Your task to perform on an android device: Clear the cart on ebay. Add "jbl flip 4" to the cart on ebay Image 0: 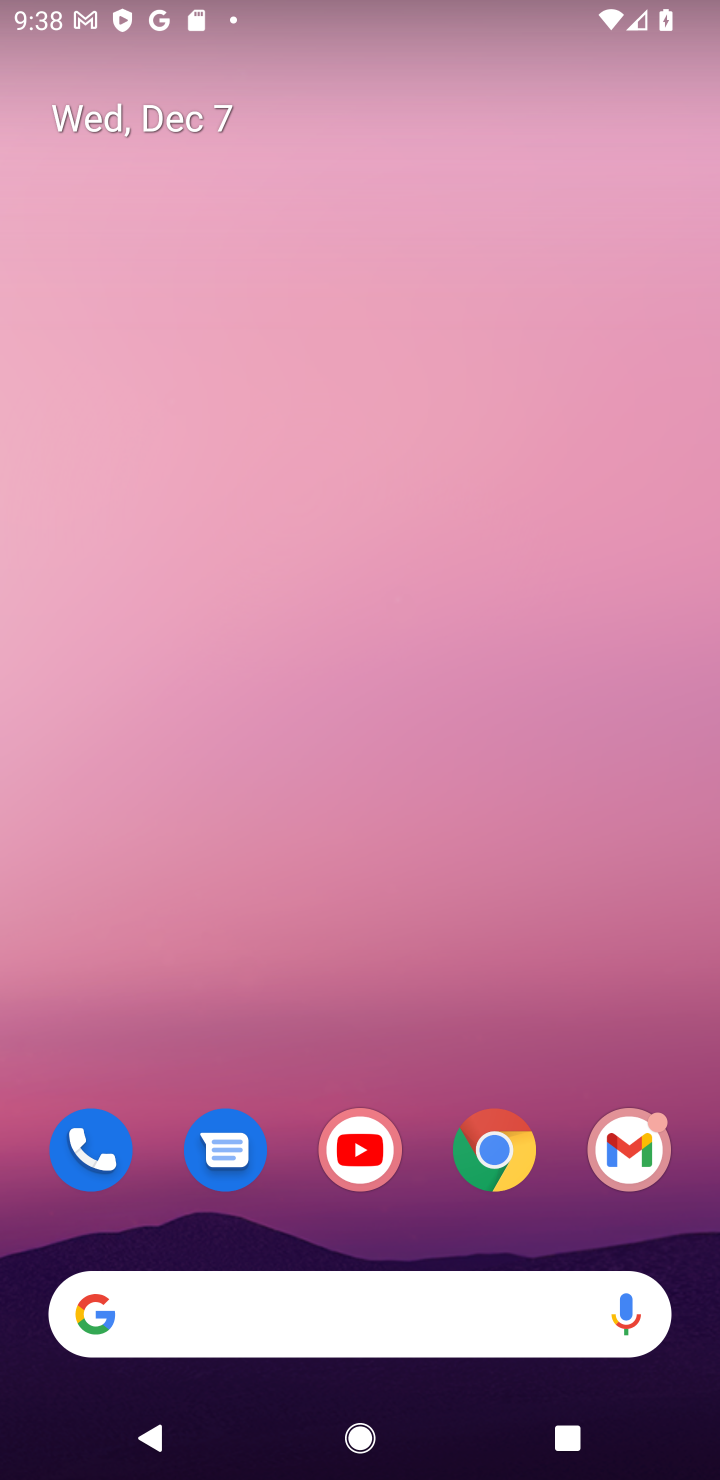
Step 0: click (490, 1156)
Your task to perform on an android device: Clear the cart on ebay. Add "jbl flip 4" to the cart on ebay Image 1: 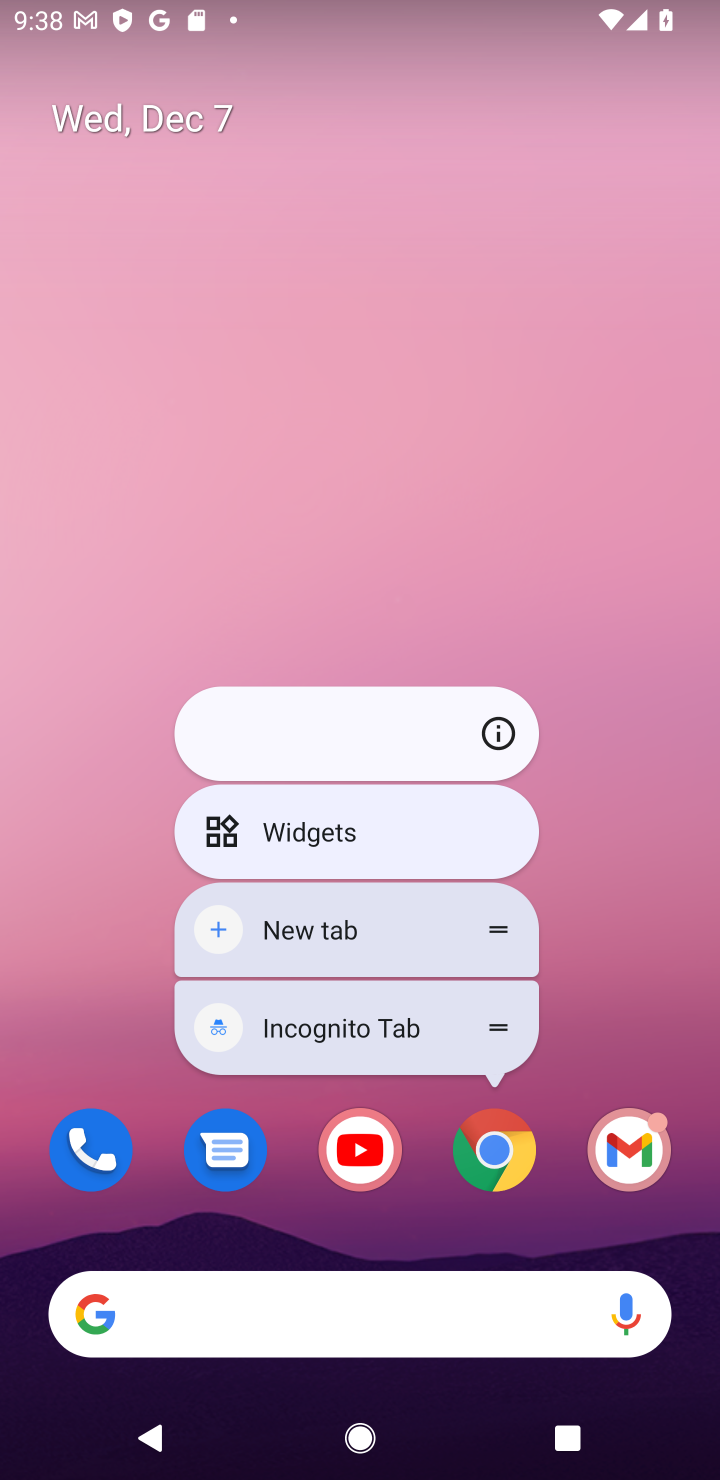
Step 1: click (510, 1138)
Your task to perform on an android device: Clear the cart on ebay. Add "jbl flip 4" to the cart on ebay Image 2: 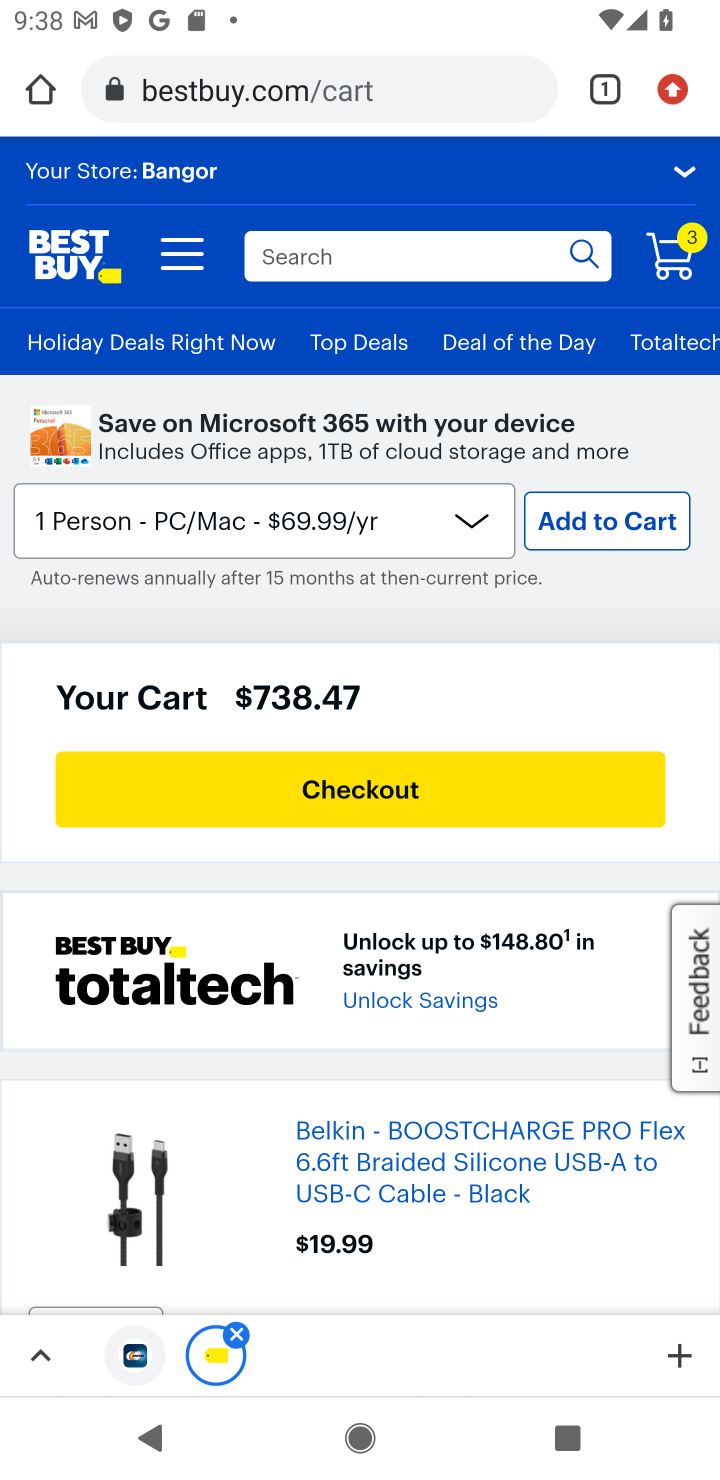
Step 2: click (350, 70)
Your task to perform on an android device: Clear the cart on ebay. Add "jbl flip 4" to the cart on ebay Image 3: 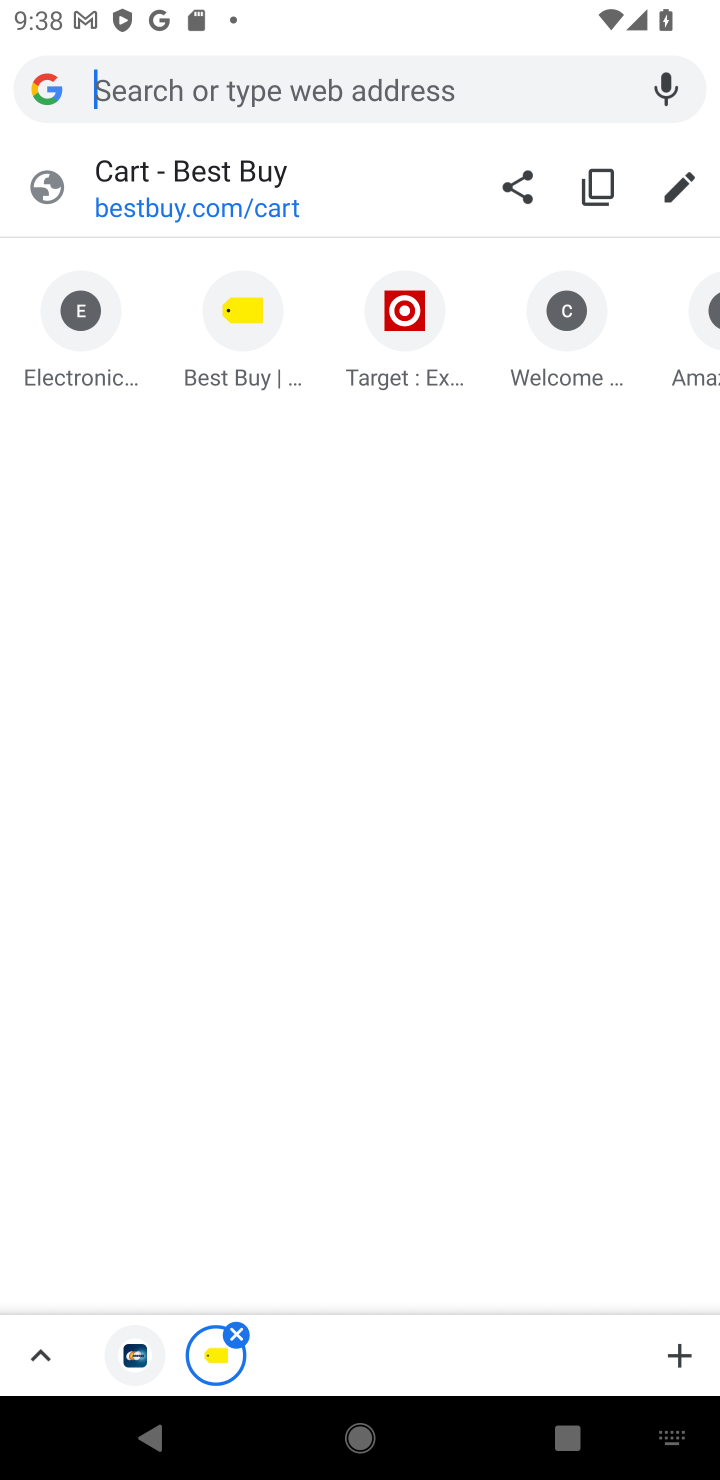
Step 3: type "ebay"
Your task to perform on an android device: Clear the cart on ebay. Add "jbl flip 4" to the cart on ebay Image 4: 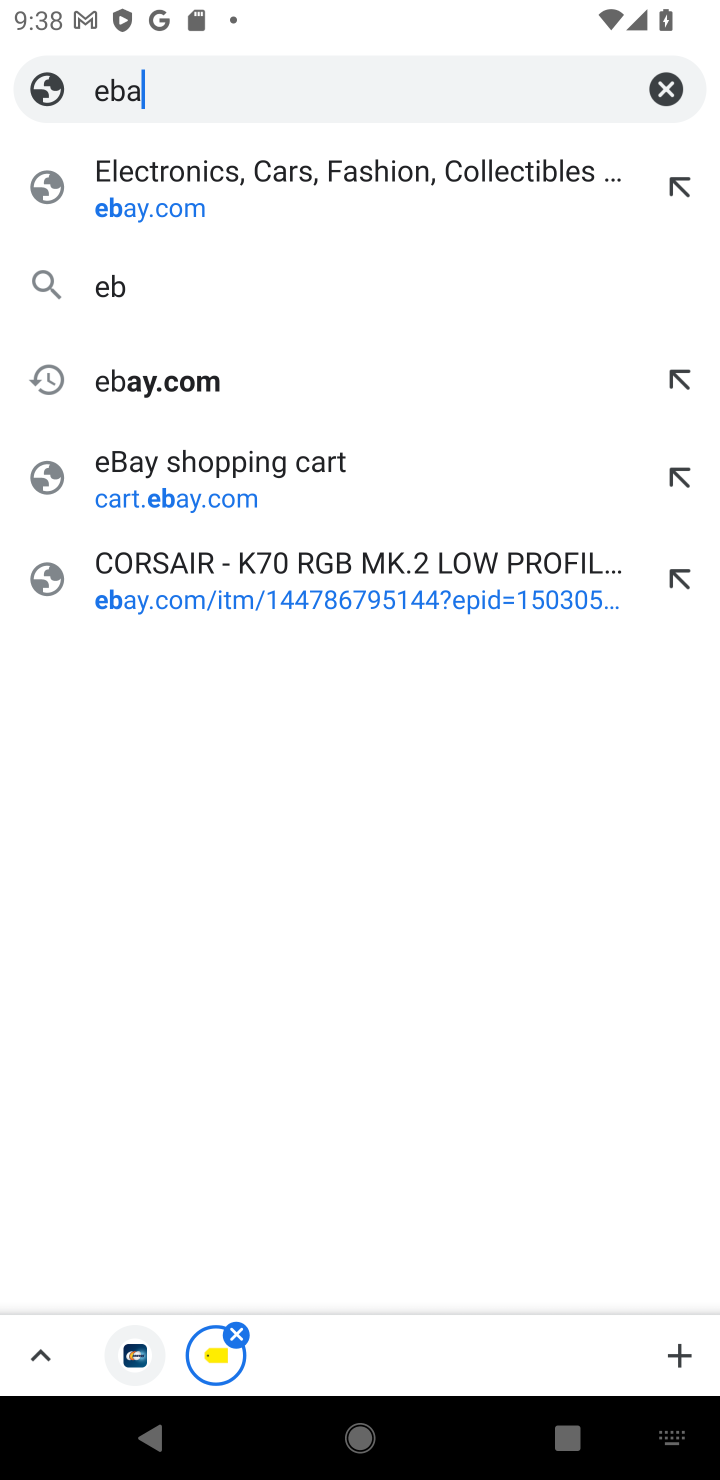
Step 4: press enter
Your task to perform on an android device: Clear the cart on ebay. Add "jbl flip 4" to the cart on ebay Image 5: 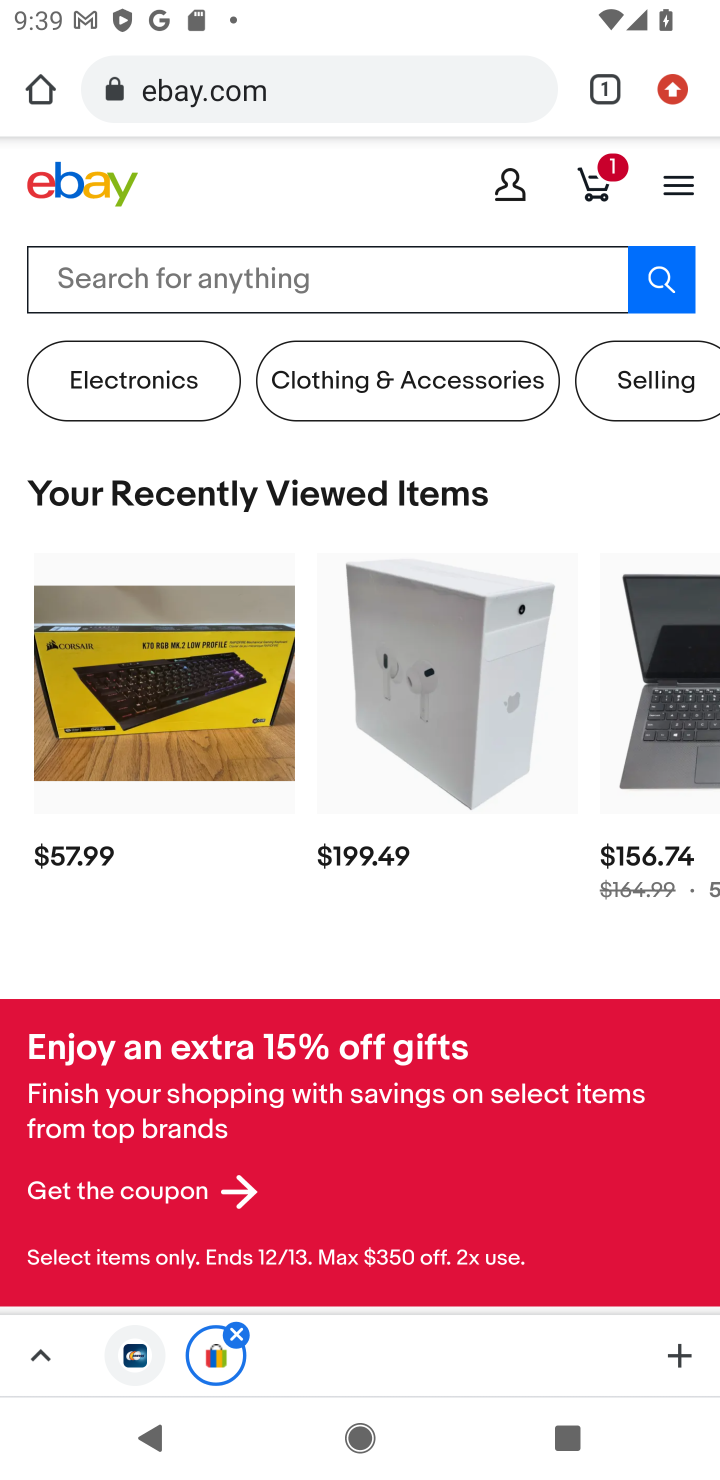
Step 5: click (606, 184)
Your task to perform on an android device: Clear the cart on ebay. Add "jbl flip 4" to the cart on ebay Image 6: 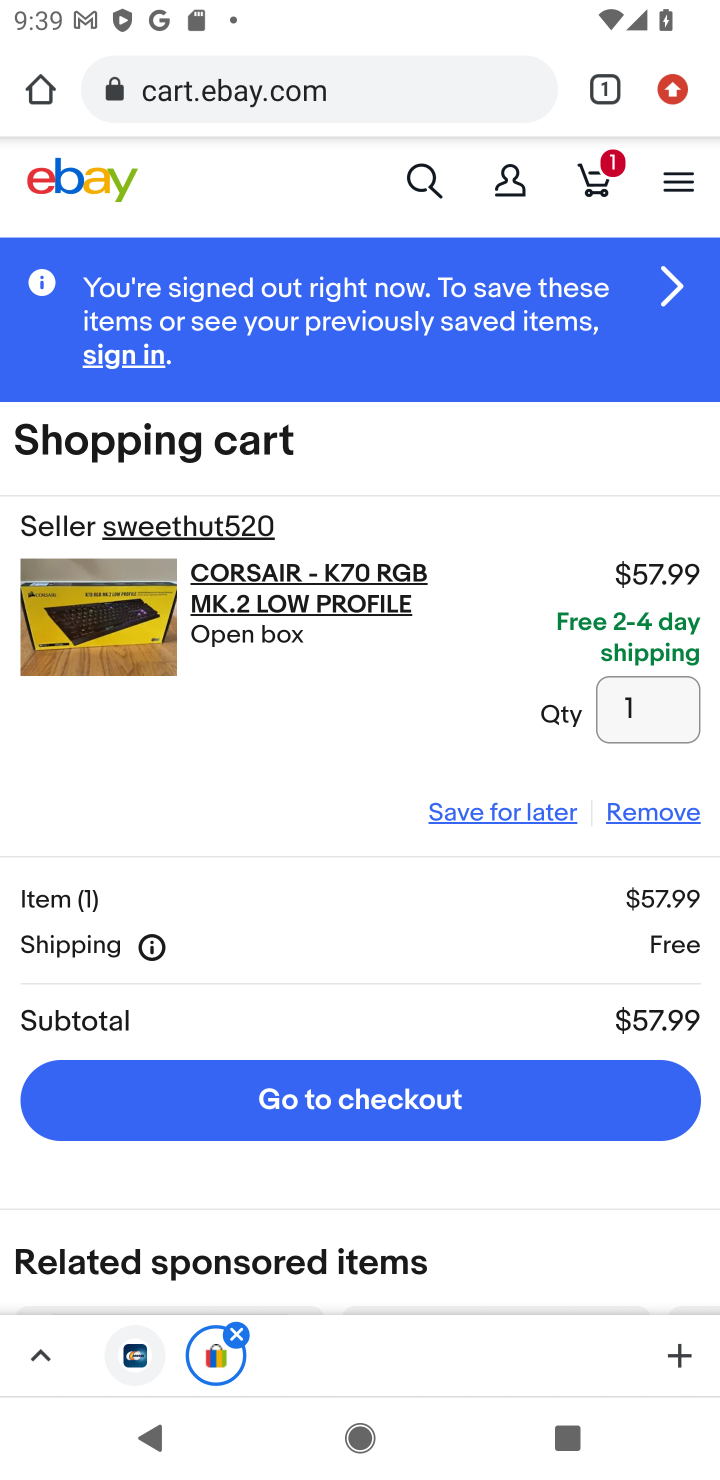
Step 6: click (654, 811)
Your task to perform on an android device: Clear the cart on ebay. Add "jbl flip 4" to the cart on ebay Image 7: 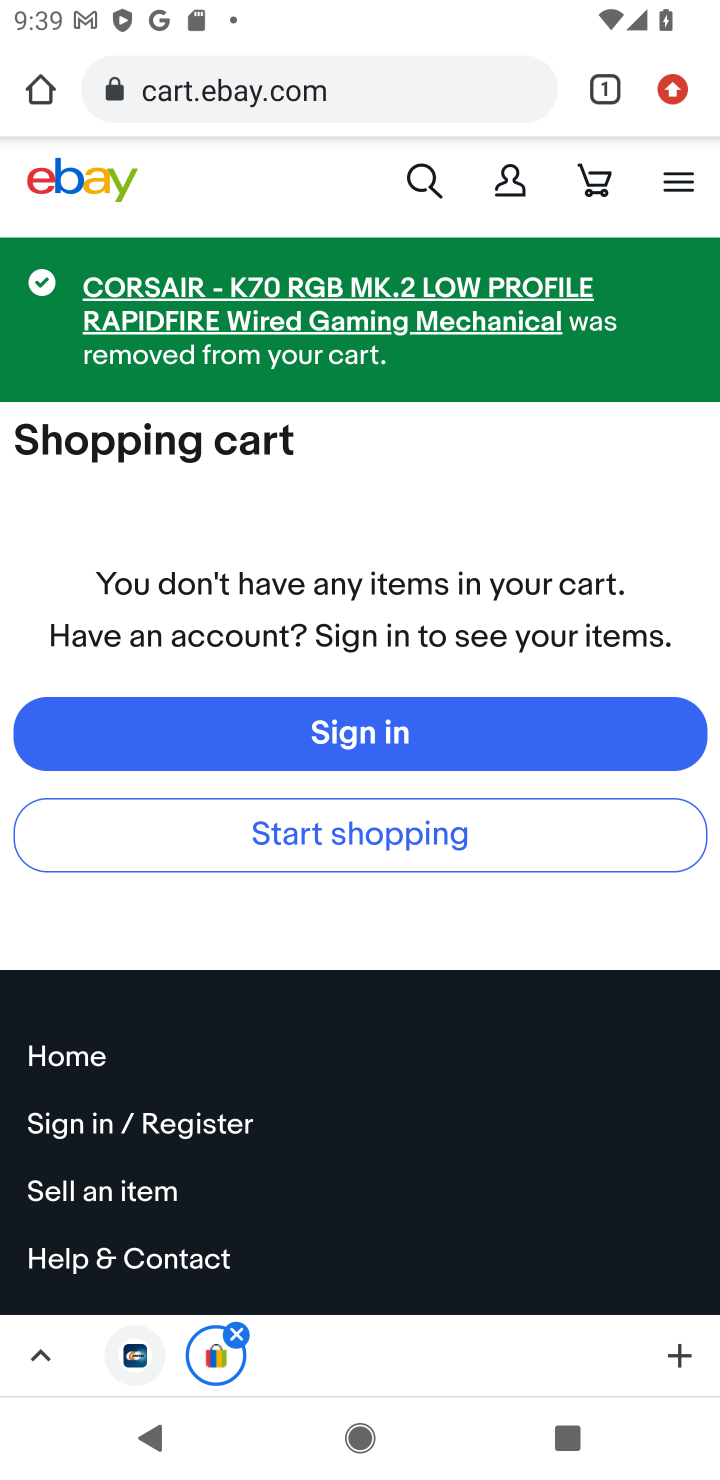
Step 7: click (419, 180)
Your task to perform on an android device: Clear the cart on ebay. Add "jbl flip 4" to the cart on ebay Image 8: 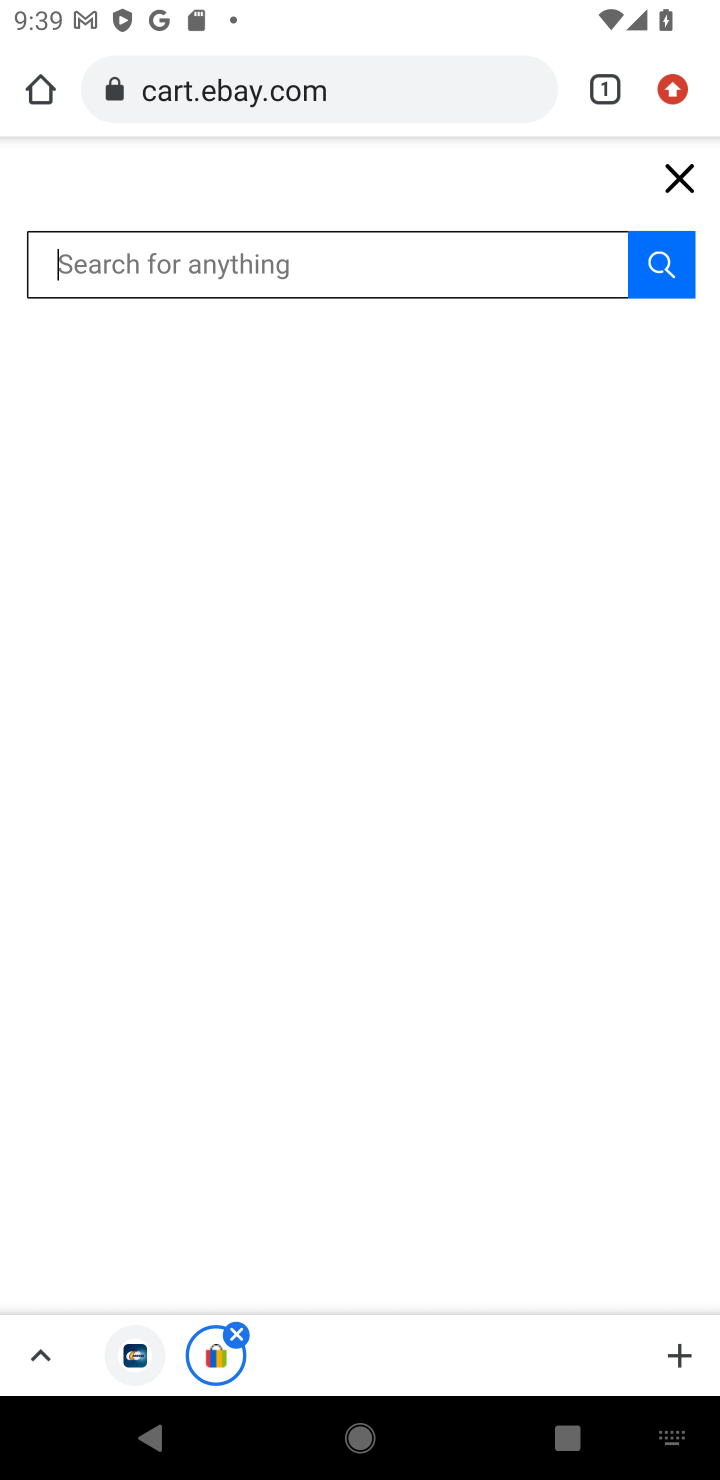
Step 8: type "jbl flip 4"
Your task to perform on an android device: Clear the cart on ebay. Add "jbl flip 4" to the cart on ebay Image 9: 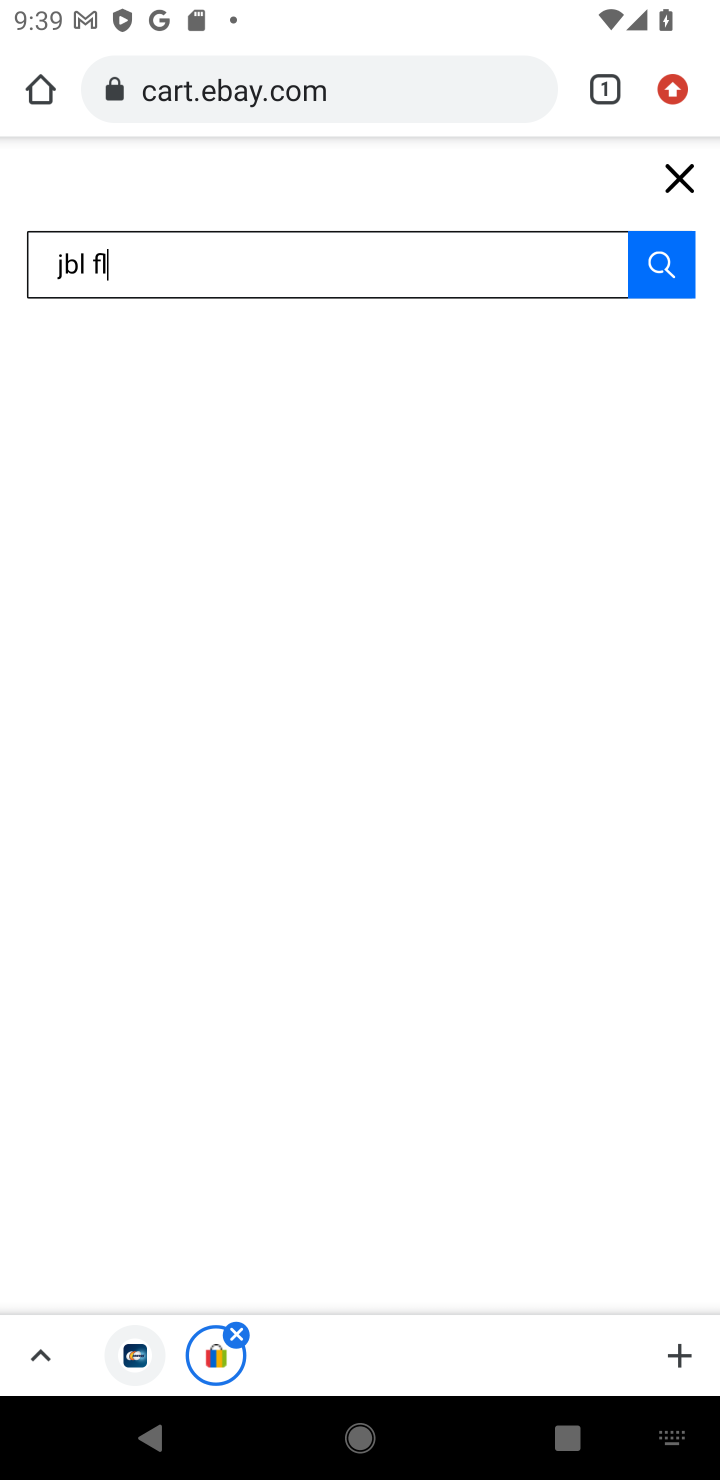
Step 9: press enter
Your task to perform on an android device: Clear the cart on ebay. Add "jbl flip 4" to the cart on ebay Image 10: 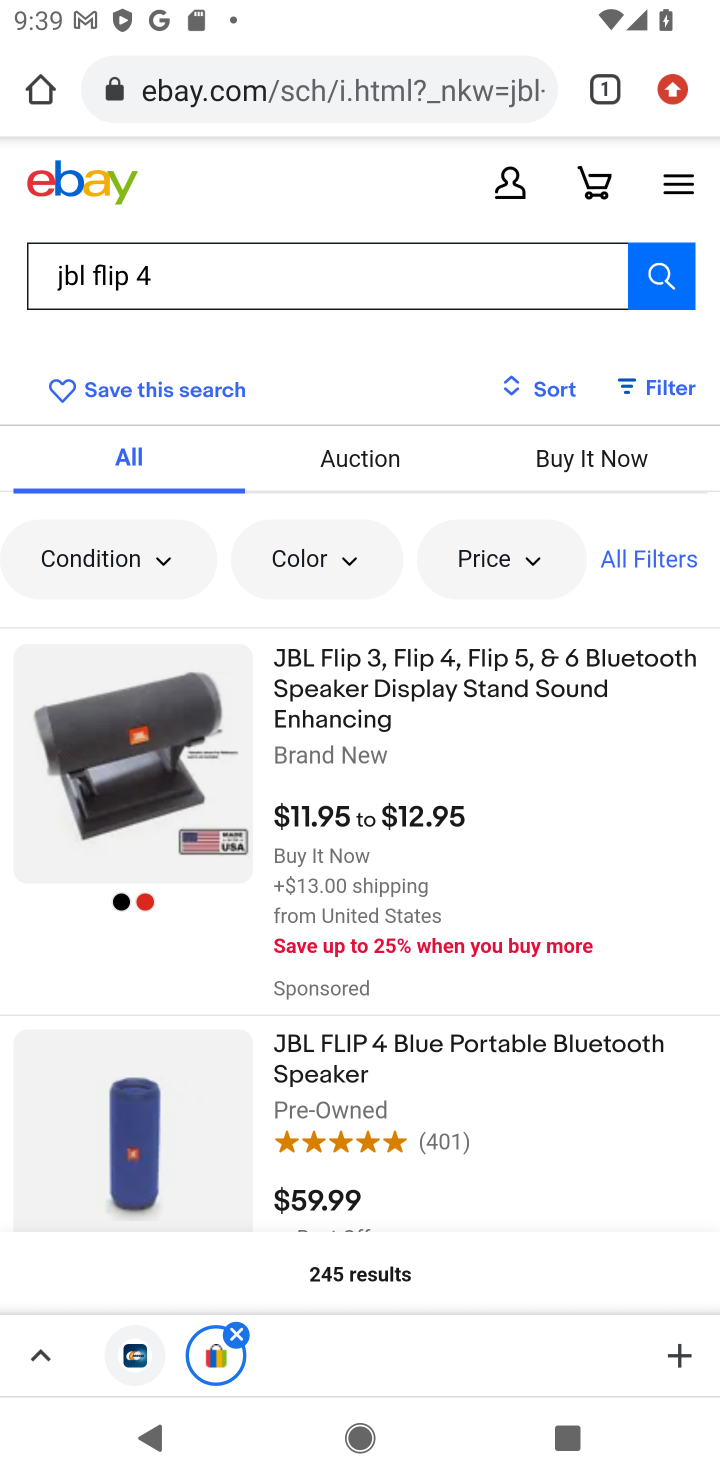
Step 10: click (139, 1130)
Your task to perform on an android device: Clear the cart on ebay. Add "jbl flip 4" to the cart on ebay Image 11: 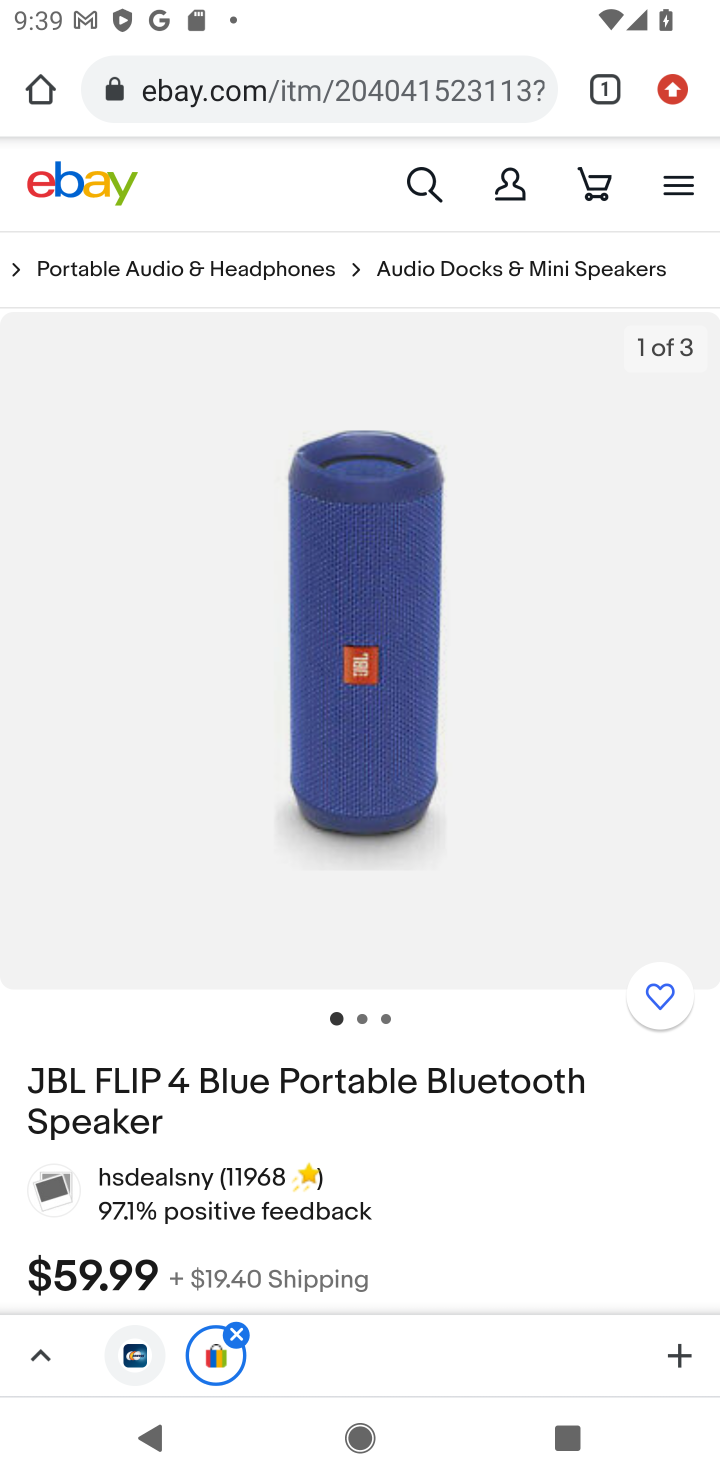
Step 11: drag from (501, 1066) to (502, 688)
Your task to perform on an android device: Clear the cart on ebay. Add "jbl flip 4" to the cart on ebay Image 12: 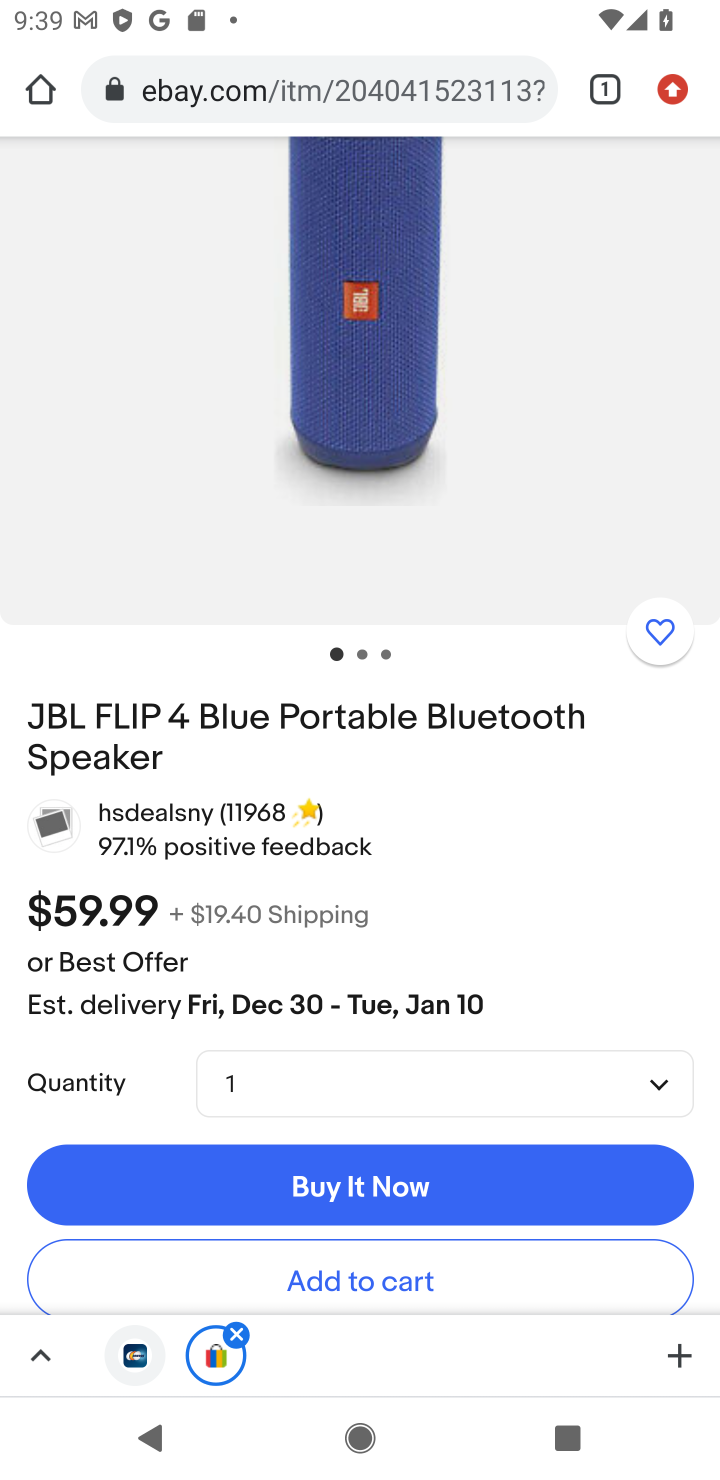
Step 12: click (379, 1270)
Your task to perform on an android device: Clear the cart on ebay. Add "jbl flip 4" to the cart on ebay Image 13: 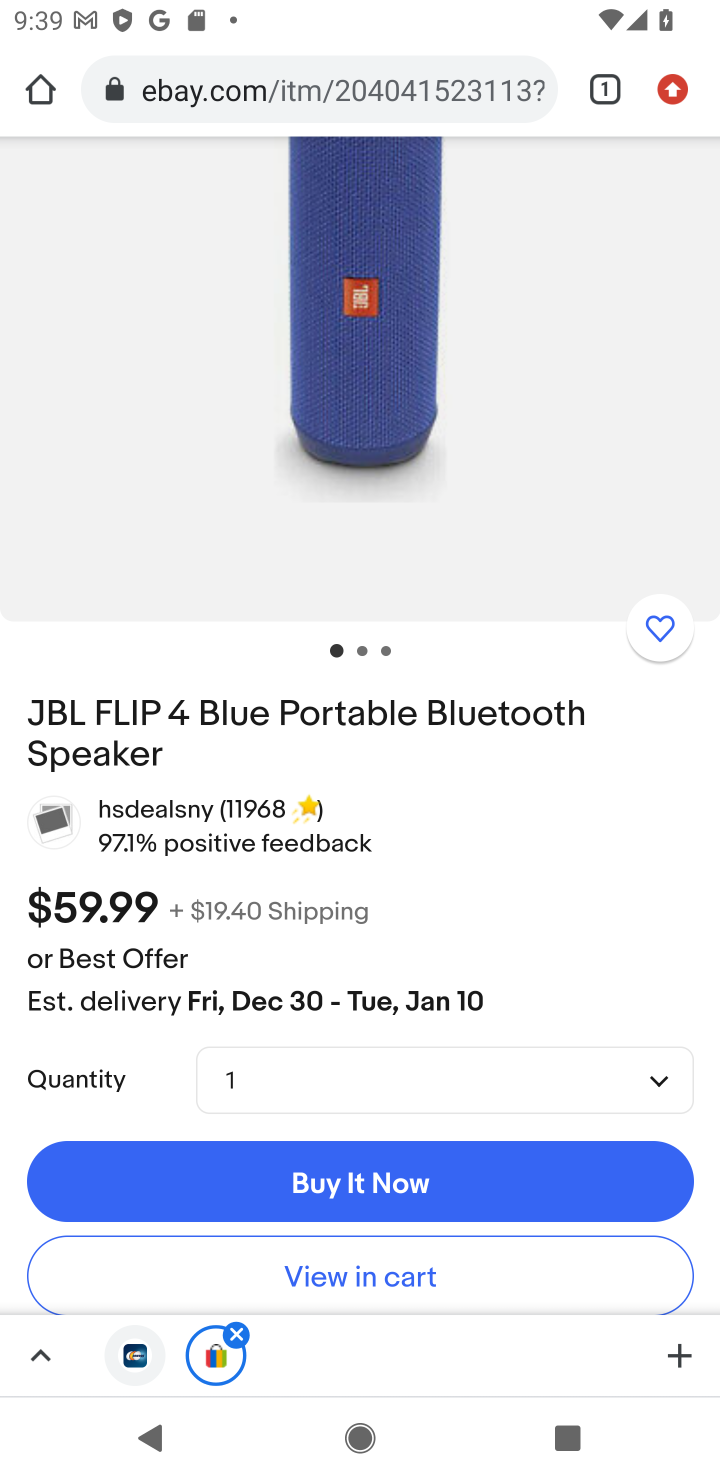
Step 13: click (385, 1260)
Your task to perform on an android device: Clear the cart on ebay. Add "jbl flip 4" to the cart on ebay Image 14: 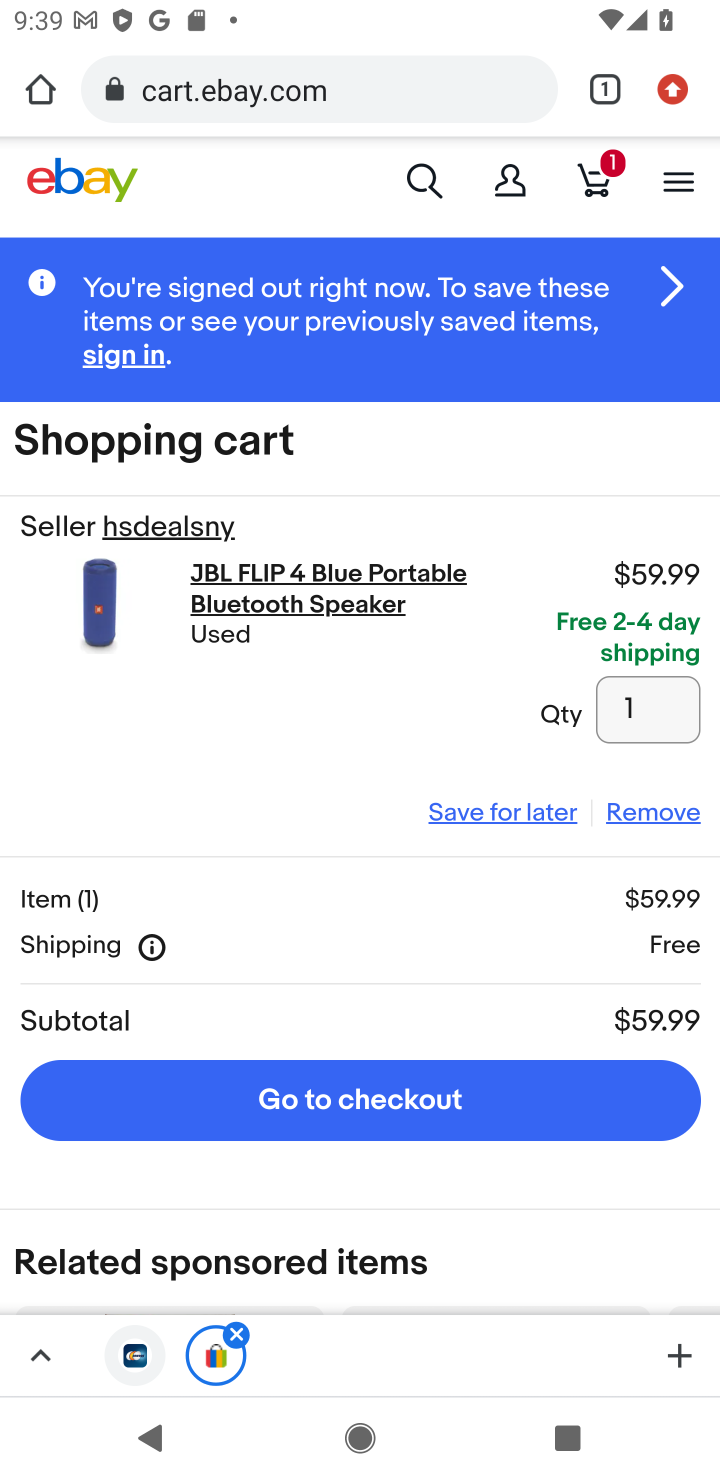
Step 14: task complete